Your task to perform on an android device: toggle pop-ups in chrome Image 0: 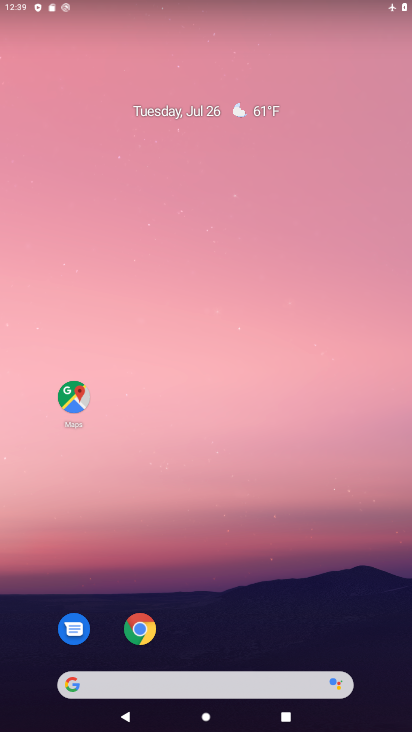
Step 0: drag from (216, 670) to (185, 33)
Your task to perform on an android device: toggle pop-ups in chrome Image 1: 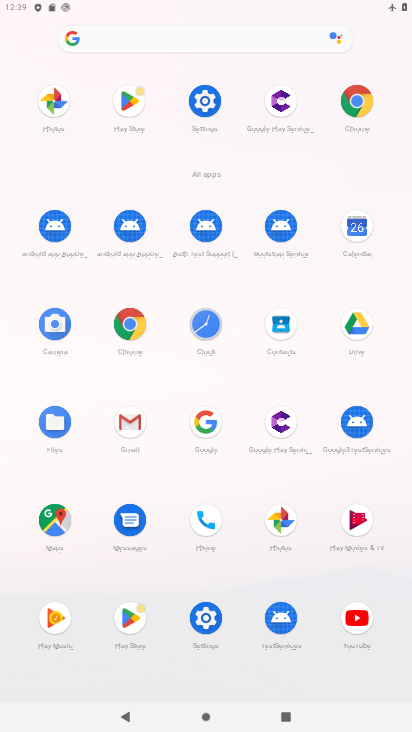
Step 1: click (125, 335)
Your task to perform on an android device: toggle pop-ups in chrome Image 2: 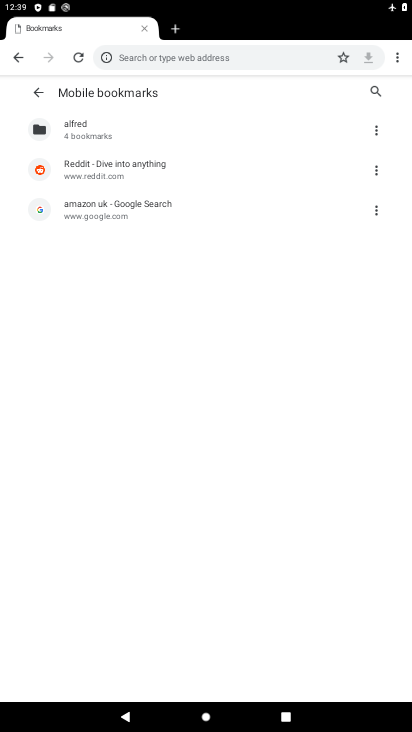
Step 2: drag from (403, 56) to (273, 258)
Your task to perform on an android device: toggle pop-ups in chrome Image 3: 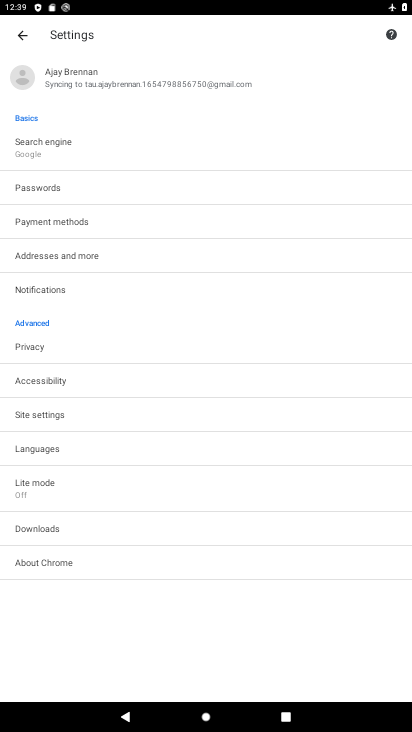
Step 3: click (39, 419)
Your task to perform on an android device: toggle pop-ups in chrome Image 4: 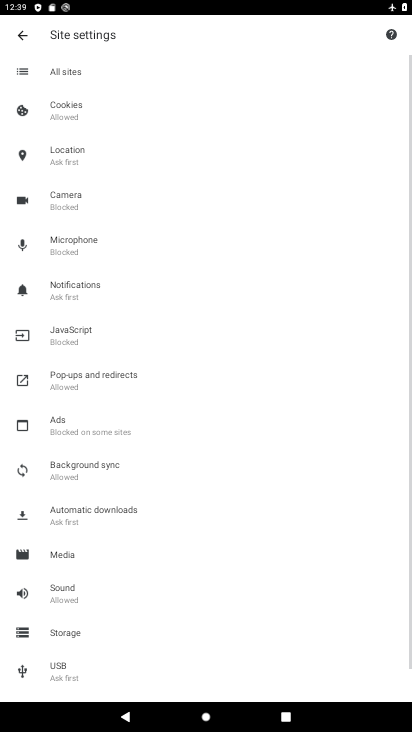
Step 4: click (77, 377)
Your task to perform on an android device: toggle pop-ups in chrome Image 5: 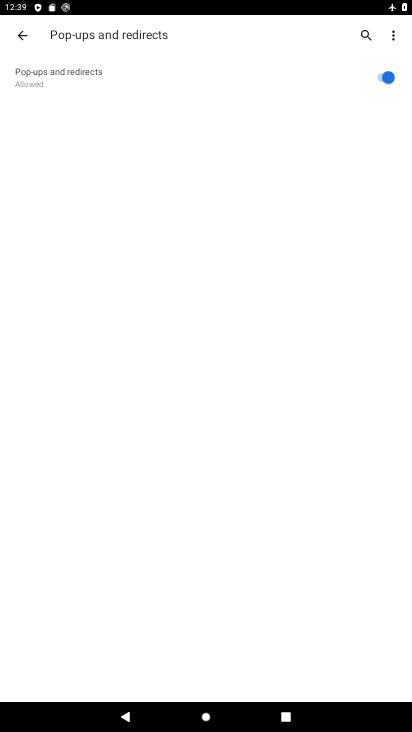
Step 5: click (388, 79)
Your task to perform on an android device: toggle pop-ups in chrome Image 6: 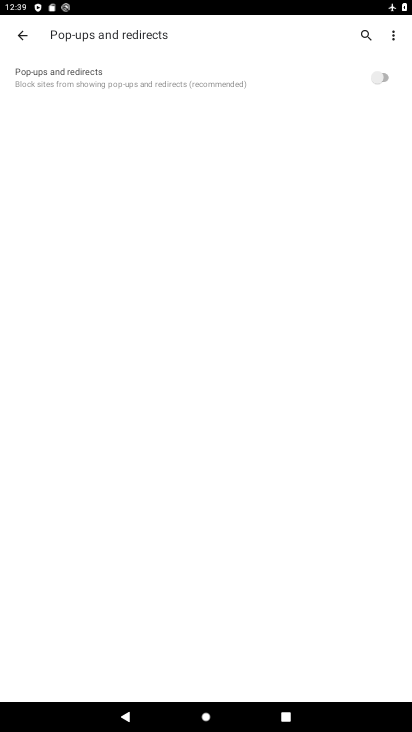
Step 6: task complete